Your task to perform on an android device: turn off location history Image 0: 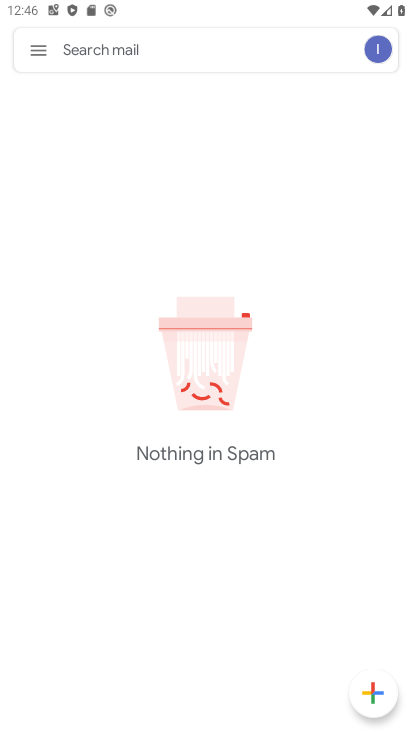
Step 0: press home button
Your task to perform on an android device: turn off location history Image 1: 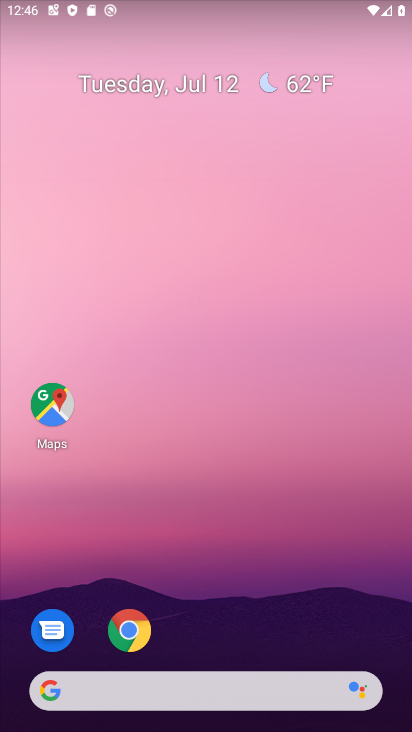
Step 1: drag from (255, 548) to (168, 143)
Your task to perform on an android device: turn off location history Image 2: 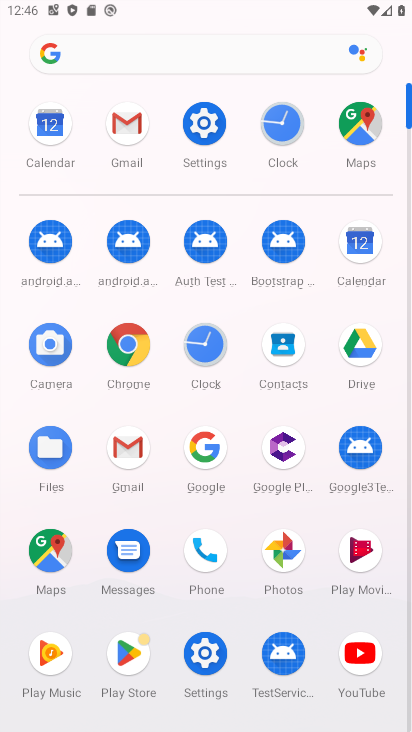
Step 2: click (45, 545)
Your task to perform on an android device: turn off location history Image 3: 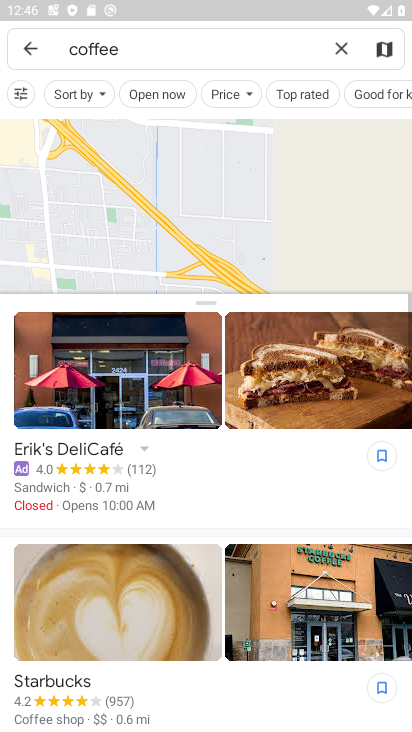
Step 3: click (31, 49)
Your task to perform on an android device: turn off location history Image 4: 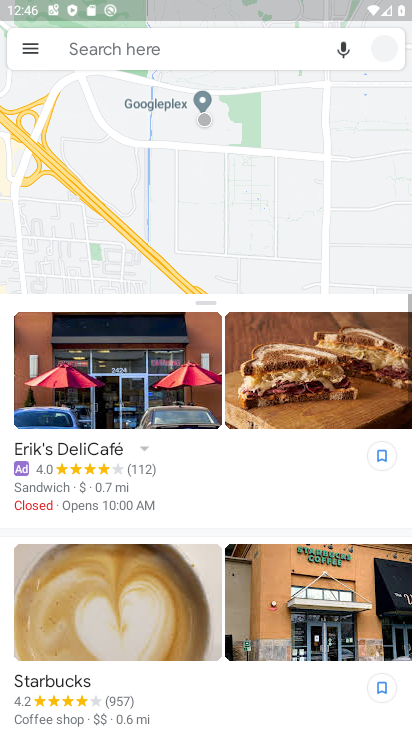
Step 4: click (31, 49)
Your task to perform on an android device: turn off location history Image 5: 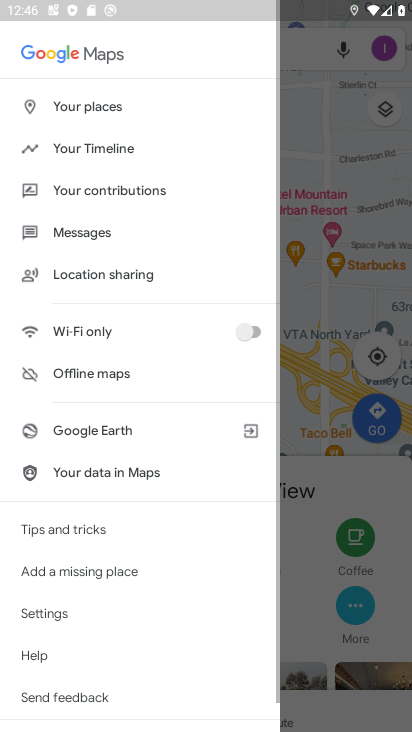
Step 5: click (84, 140)
Your task to perform on an android device: turn off location history Image 6: 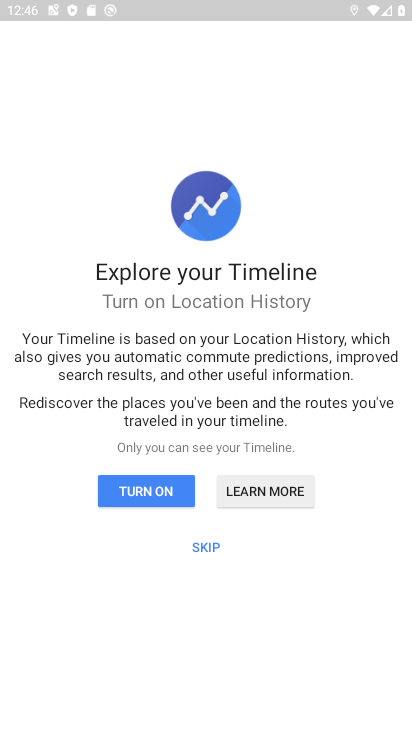
Step 6: click (202, 545)
Your task to perform on an android device: turn off location history Image 7: 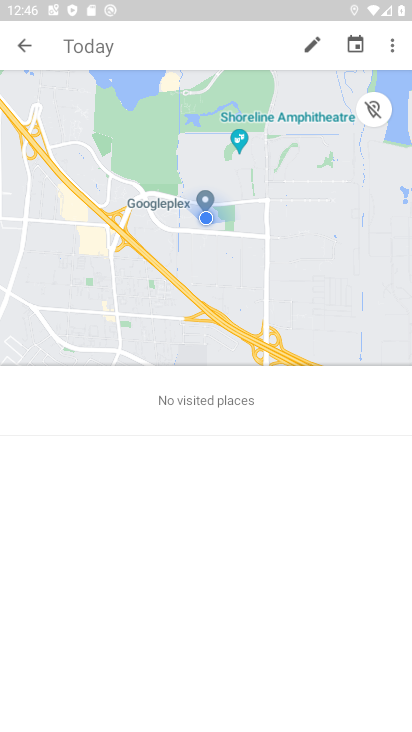
Step 7: click (392, 45)
Your task to perform on an android device: turn off location history Image 8: 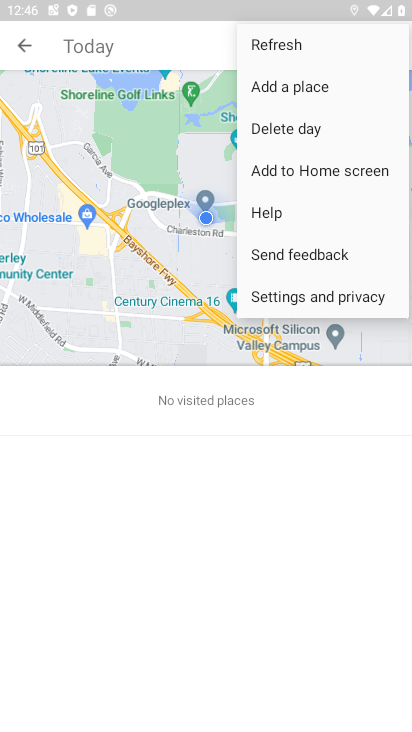
Step 8: click (306, 287)
Your task to perform on an android device: turn off location history Image 9: 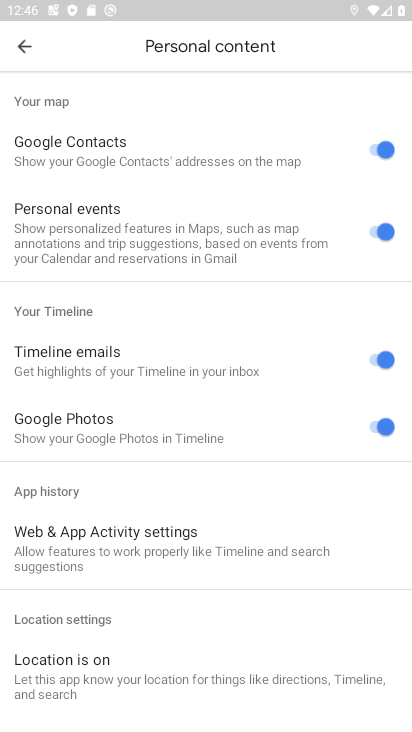
Step 9: drag from (228, 529) to (199, 272)
Your task to perform on an android device: turn off location history Image 10: 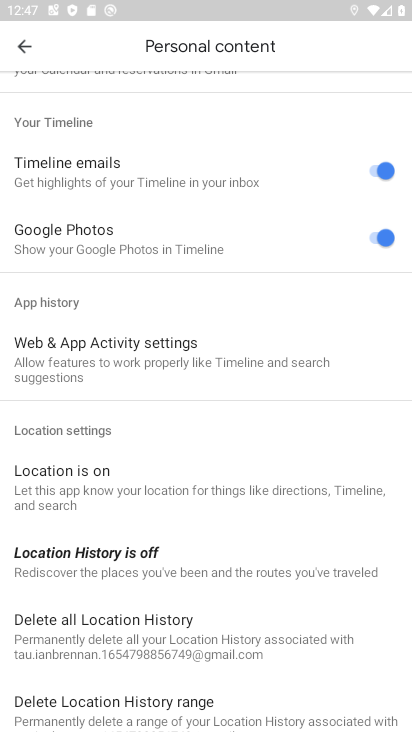
Step 10: click (84, 553)
Your task to perform on an android device: turn off location history Image 11: 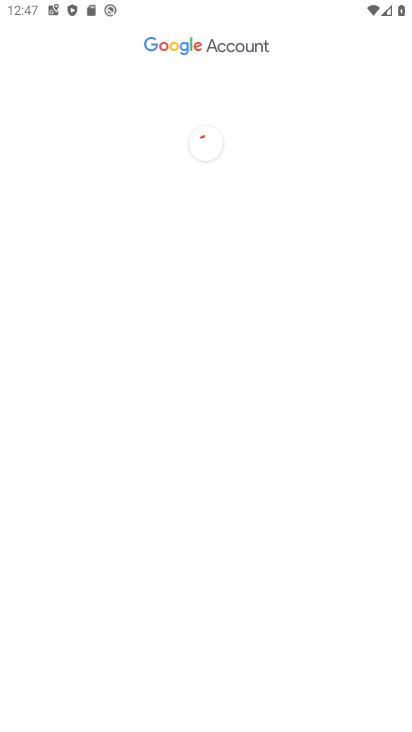
Step 11: click (88, 560)
Your task to perform on an android device: turn off location history Image 12: 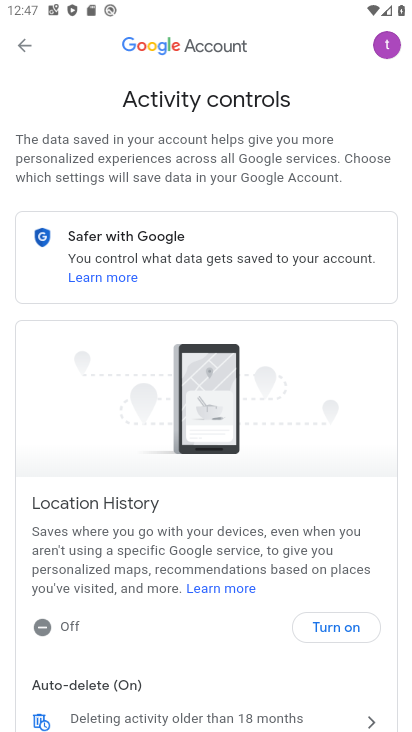
Step 12: task complete